Your task to perform on an android device: allow notifications from all sites in the chrome app Image 0: 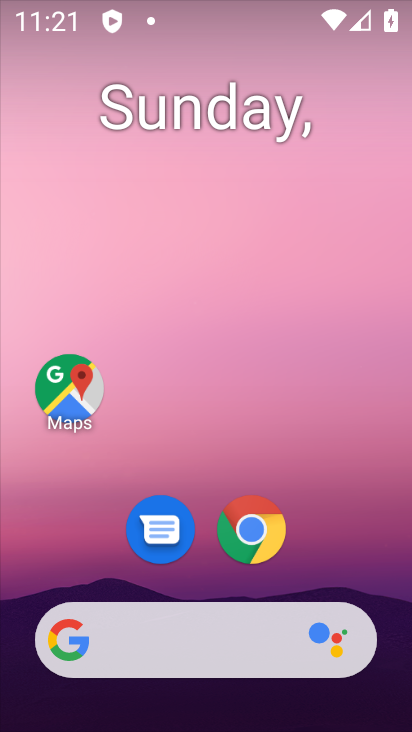
Step 0: click (252, 532)
Your task to perform on an android device: allow notifications from all sites in the chrome app Image 1: 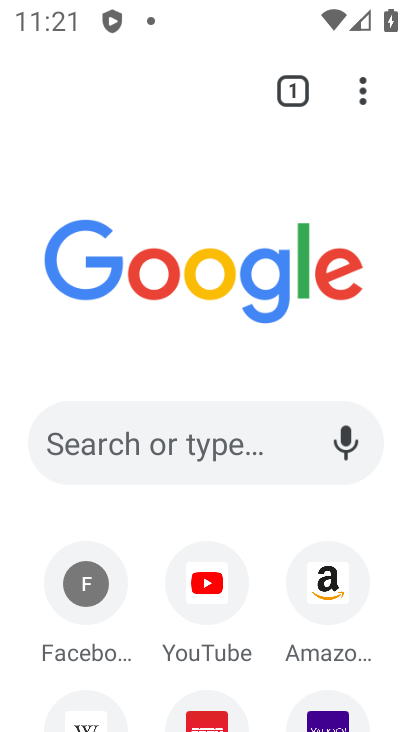
Step 1: click (361, 87)
Your task to perform on an android device: allow notifications from all sites in the chrome app Image 2: 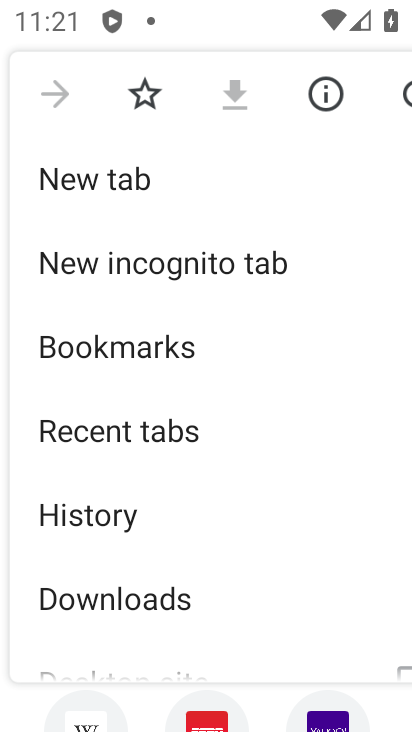
Step 2: drag from (162, 534) to (228, 386)
Your task to perform on an android device: allow notifications from all sites in the chrome app Image 3: 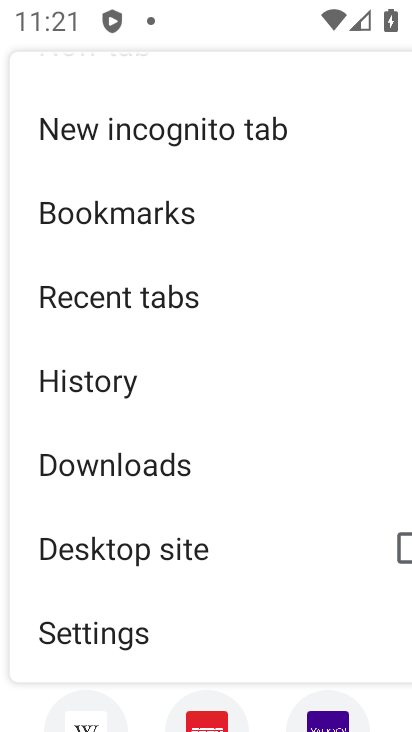
Step 3: drag from (167, 513) to (245, 400)
Your task to perform on an android device: allow notifications from all sites in the chrome app Image 4: 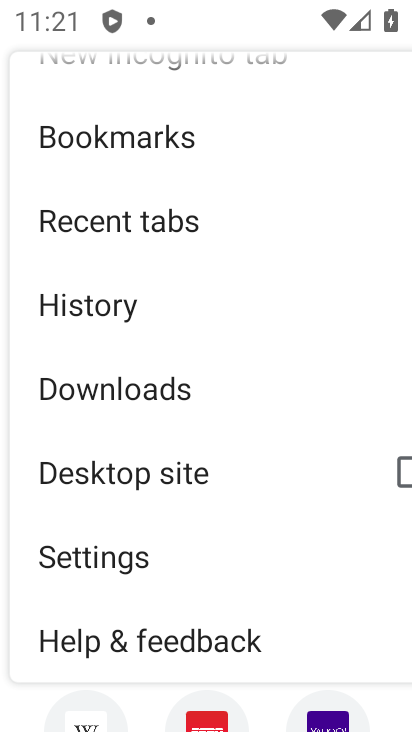
Step 4: click (136, 559)
Your task to perform on an android device: allow notifications from all sites in the chrome app Image 5: 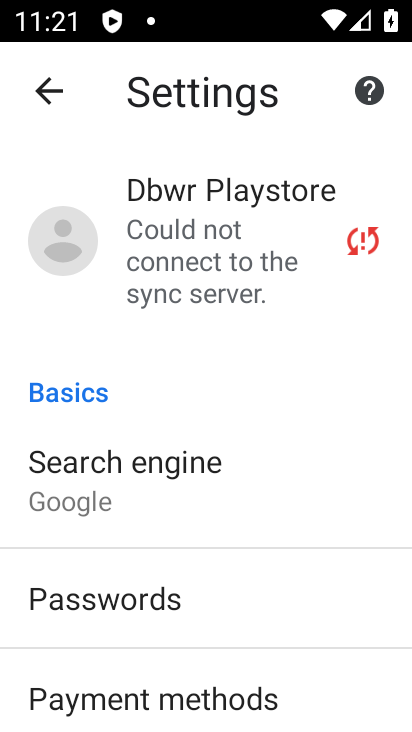
Step 5: drag from (135, 576) to (189, 443)
Your task to perform on an android device: allow notifications from all sites in the chrome app Image 6: 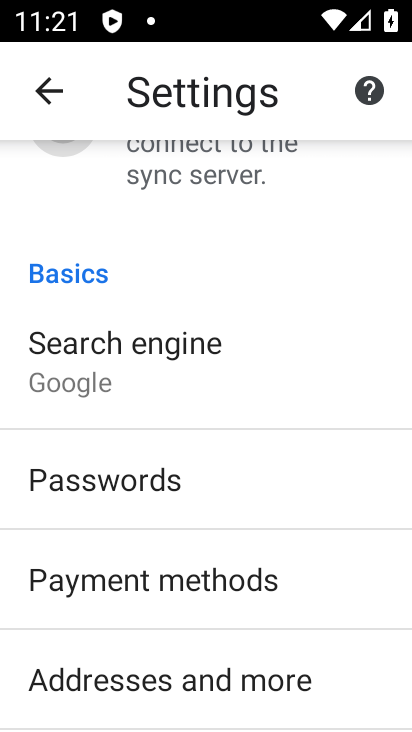
Step 6: drag from (148, 622) to (211, 455)
Your task to perform on an android device: allow notifications from all sites in the chrome app Image 7: 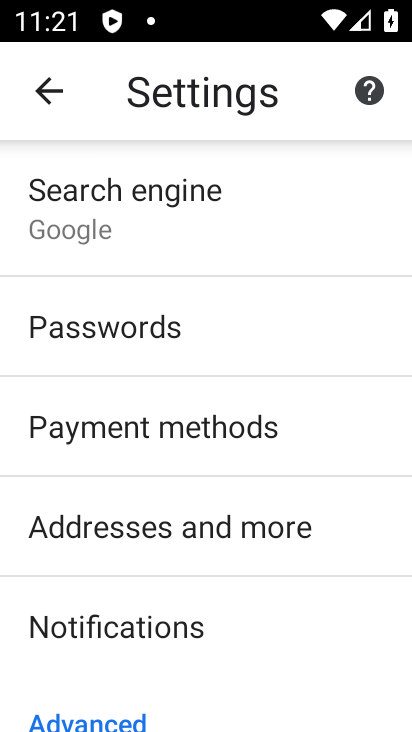
Step 7: drag from (166, 577) to (237, 415)
Your task to perform on an android device: allow notifications from all sites in the chrome app Image 8: 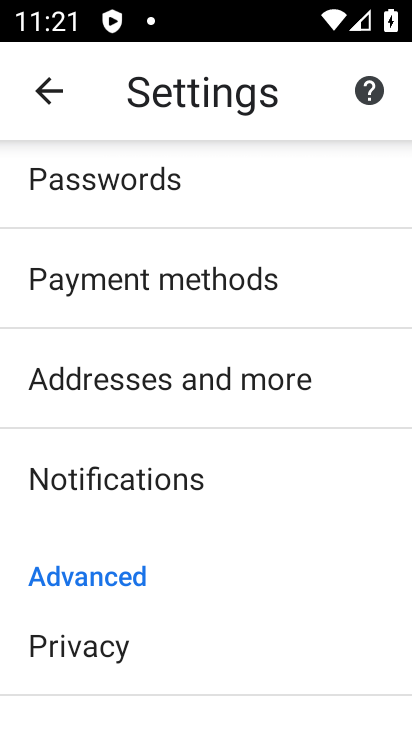
Step 8: drag from (131, 520) to (224, 369)
Your task to perform on an android device: allow notifications from all sites in the chrome app Image 9: 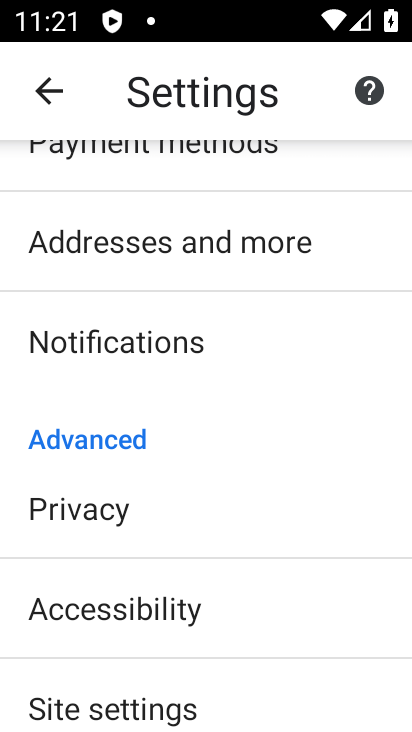
Step 9: drag from (150, 538) to (242, 419)
Your task to perform on an android device: allow notifications from all sites in the chrome app Image 10: 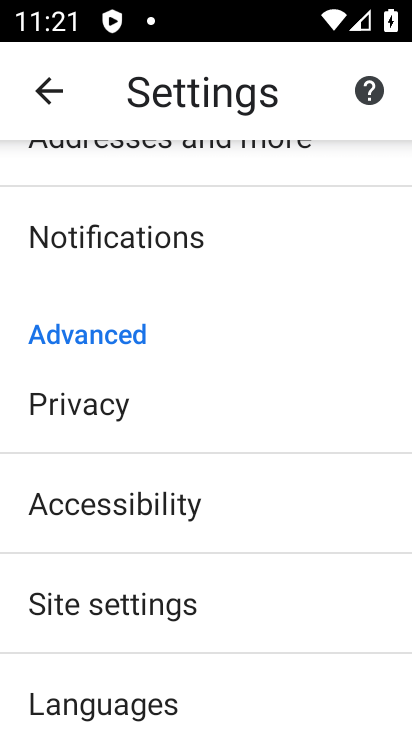
Step 10: click (136, 603)
Your task to perform on an android device: allow notifications from all sites in the chrome app Image 11: 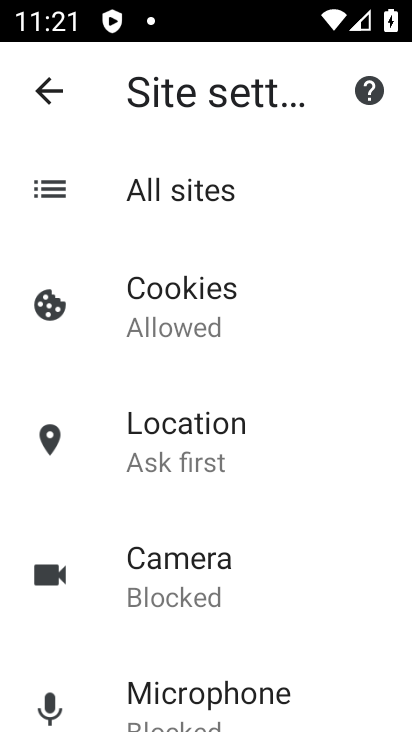
Step 11: drag from (173, 530) to (211, 437)
Your task to perform on an android device: allow notifications from all sites in the chrome app Image 12: 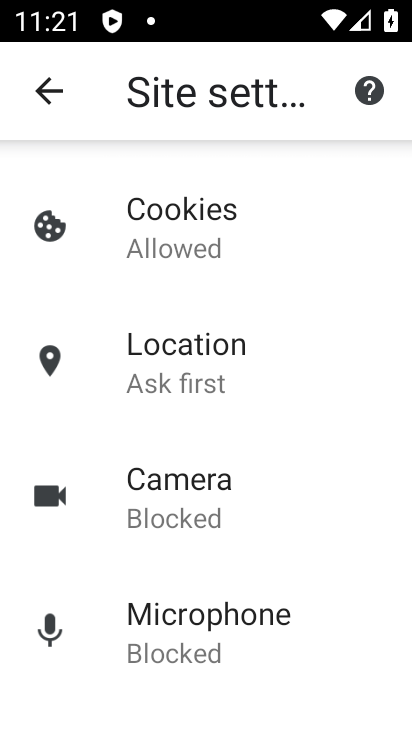
Step 12: drag from (149, 581) to (189, 482)
Your task to perform on an android device: allow notifications from all sites in the chrome app Image 13: 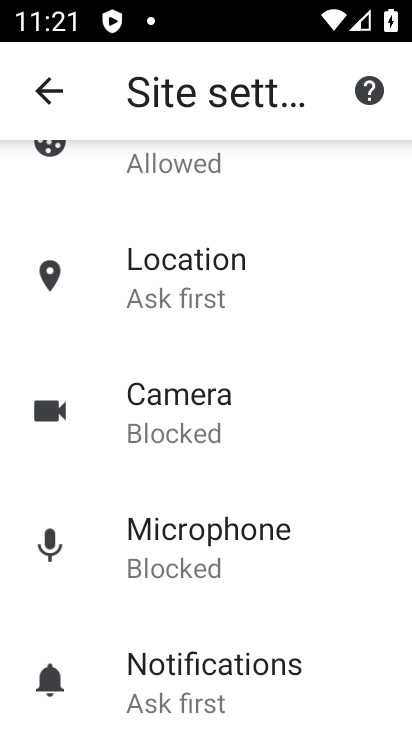
Step 13: drag from (177, 618) to (270, 458)
Your task to perform on an android device: allow notifications from all sites in the chrome app Image 14: 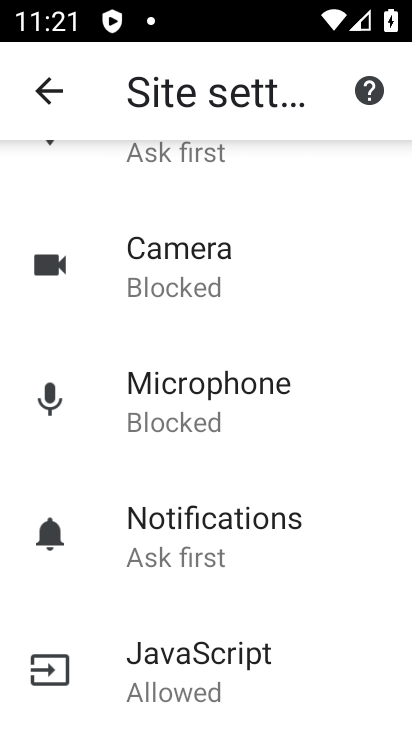
Step 14: click (224, 518)
Your task to perform on an android device: allow notifications from all sites in the chrome app Image 15: 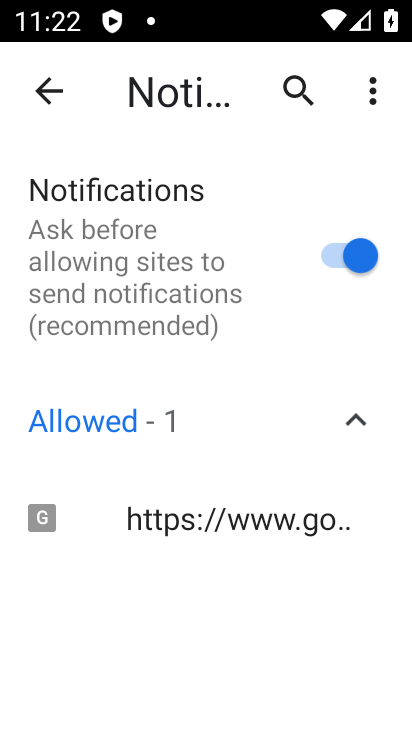
Step 15: task complete